Your task to perform on an android device: Find coffee shops on Maps Image 0: 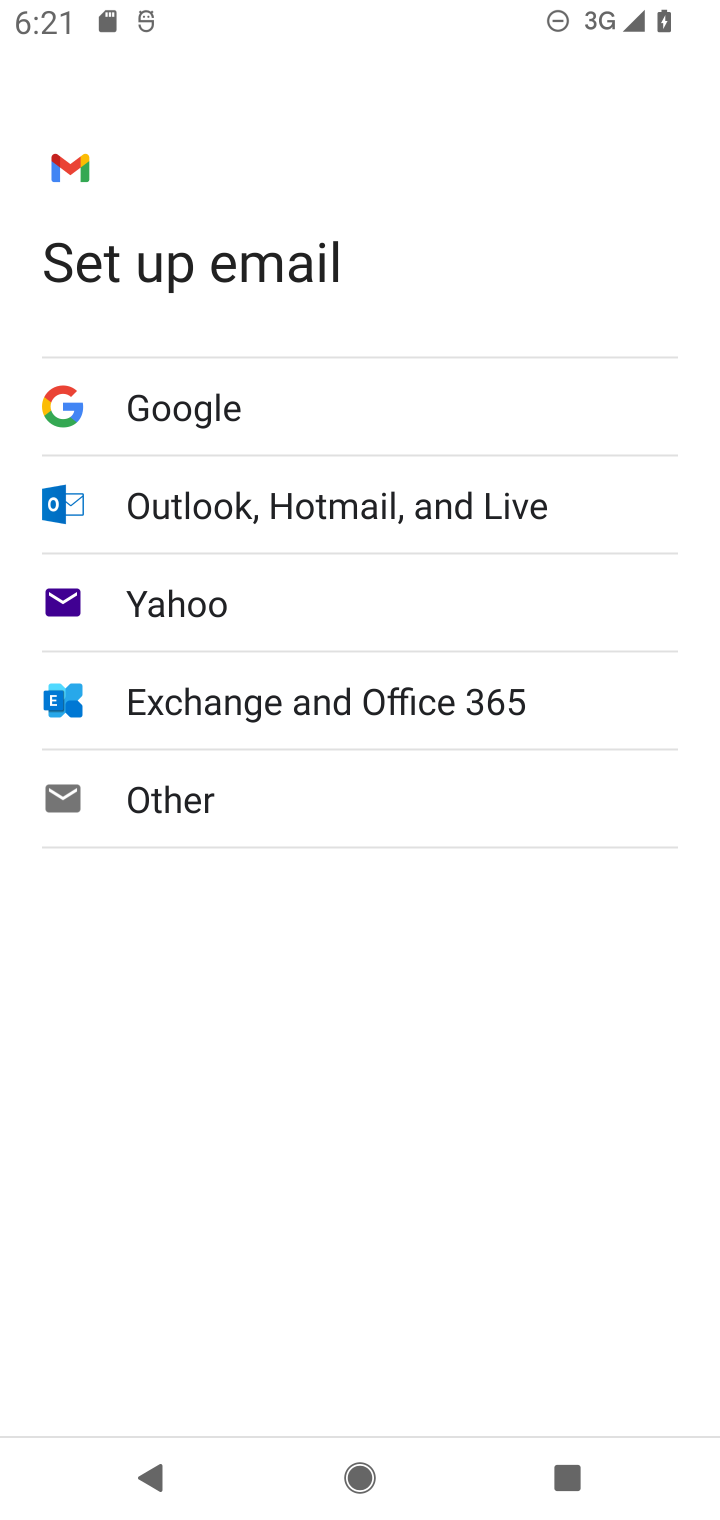
Step 0: press home button
Your task to perform on an android device: Find coffee shops on Maps Image 1: 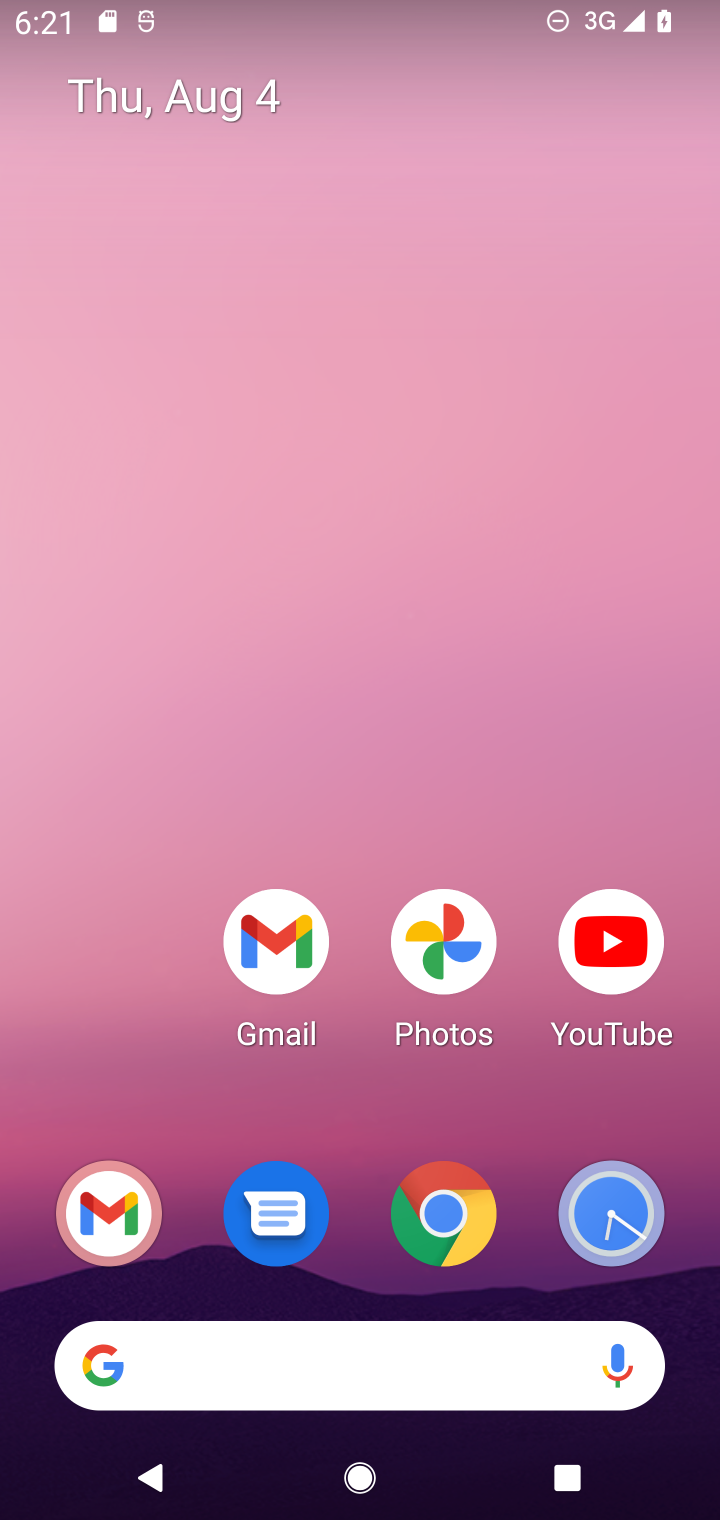
Step 1: drag from (130, 1106) to (91, 439)
Your task to perform on an android device: Find coffee shops on Maps Image 2: 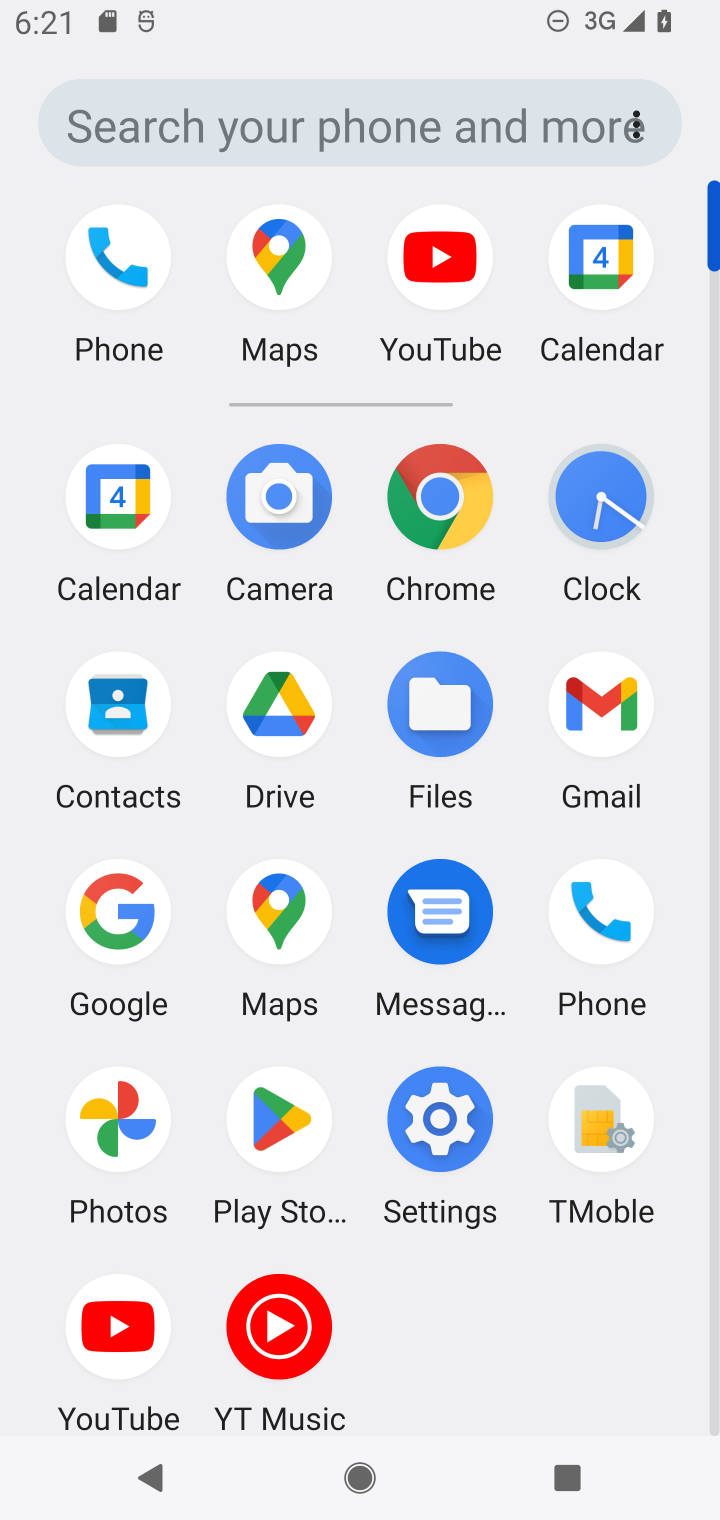
Step 2: click (274, 910)
Your task to perform on an android device: Find coffee shops on Maps Image 3: 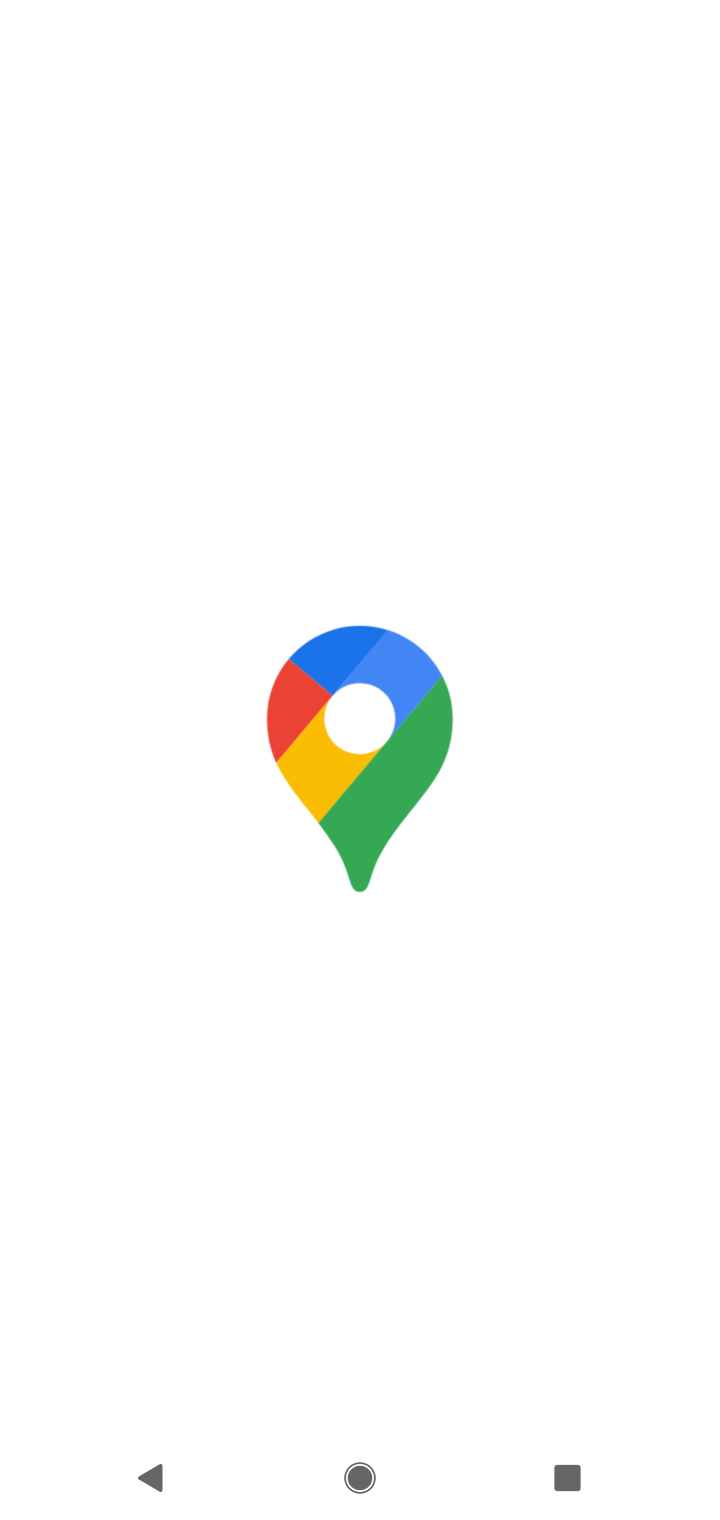
Step 3: task complete